Your task to perform on an android device: Open Chrome and go to settings Image 0: 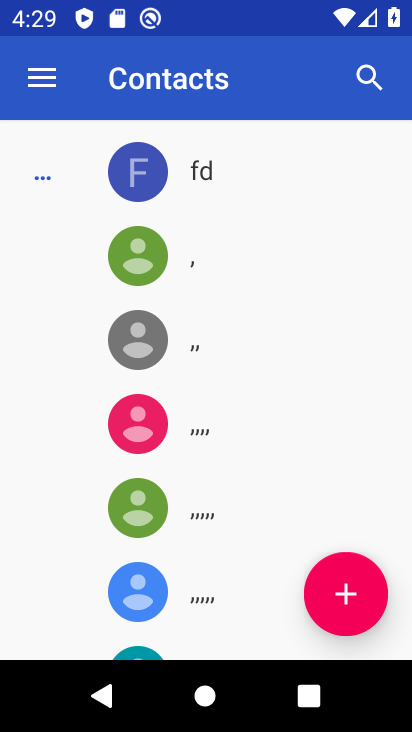
Step 0: press home button
Your task to perform on an android device: Open Chrome and go to settings Image 1: 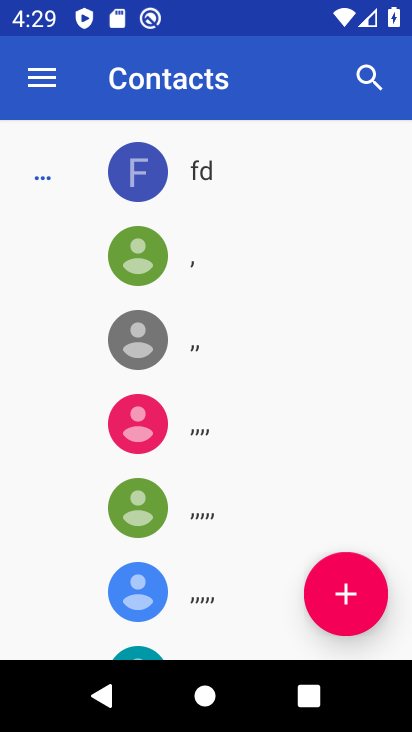
Step 1: press home button
Your task to perform on an android device: Open Chrome and go to settings Image 2: 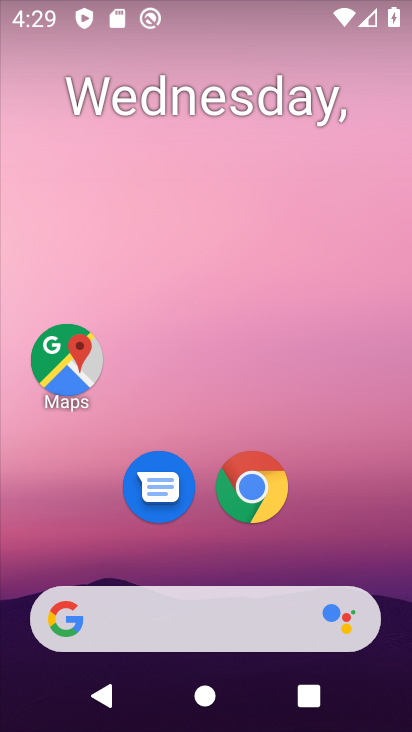
Step 2: click (257, 489)
Your task to perform on an android device: Open Chrome and go to settings Image 3: 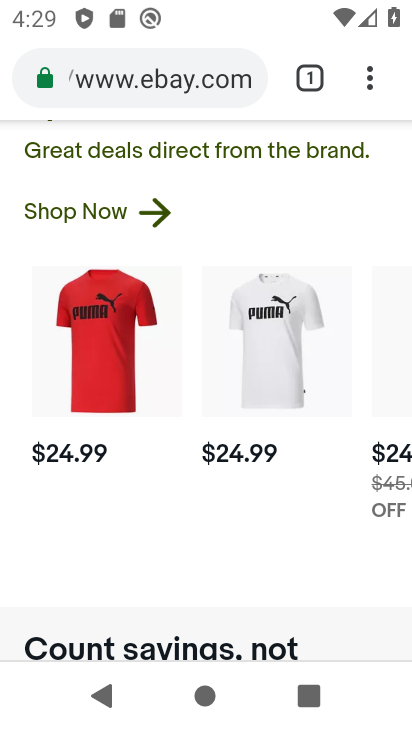
Step 3: click (349, 76)
Your task to perform on an android device: Open Chrome and go to settings Image 4: 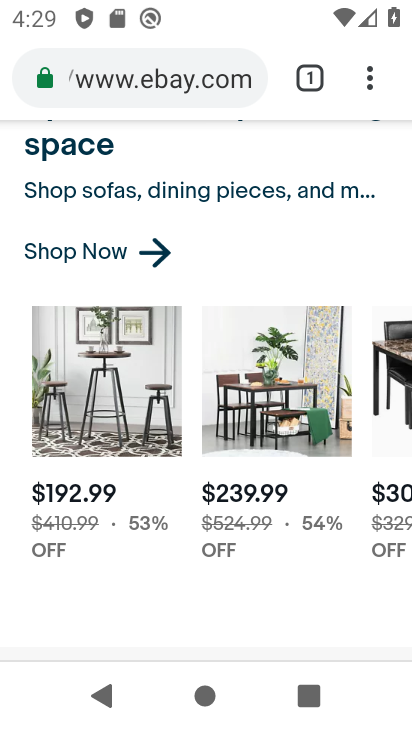
Step 4: click (366, 76)
Your task to perform on an android device: Open Chrome and go to settings Image 5: 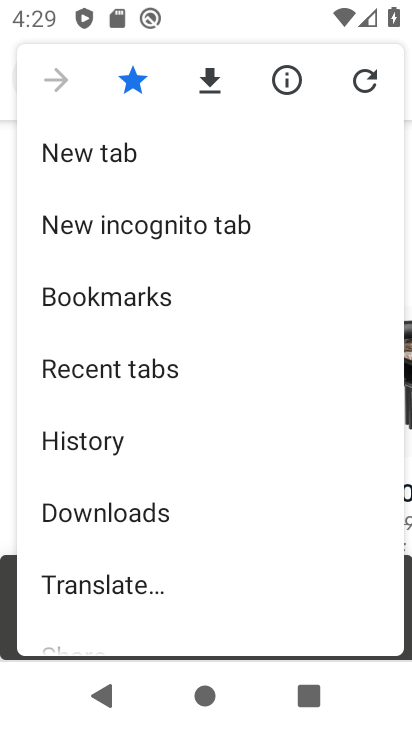
Step 5: drag from (177, 592) to (191, 168)
Your task to perform on an android device: Open Chrome and go to settings Image 6: 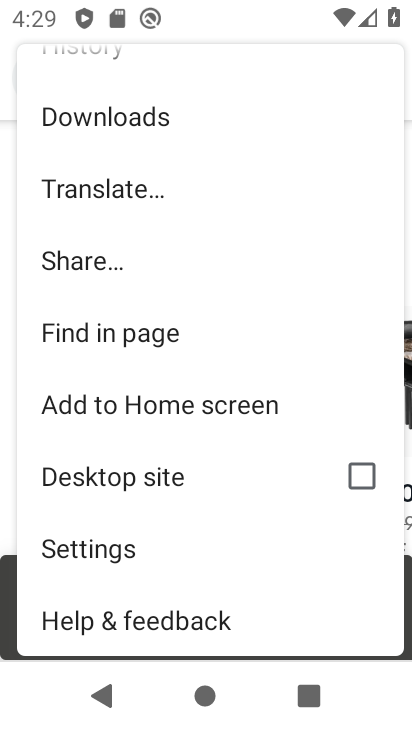
Step 6: click (156, 550)
Your task to perform on an android device: Open Chrome and go to settings Image 7: 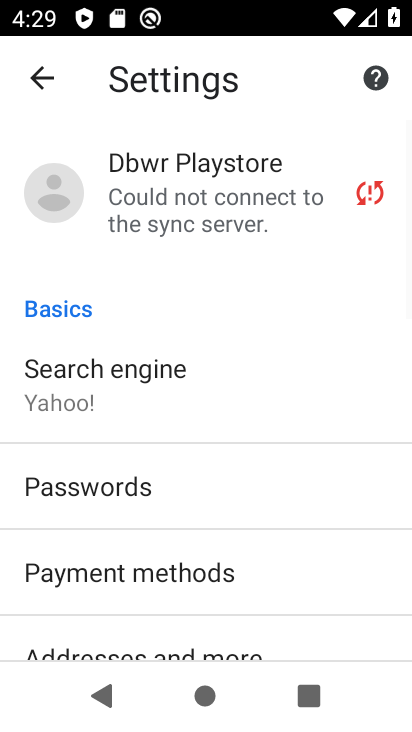
Step 7: task complete